Your task to perform on an android device: open sync settings in chrome Image 0: 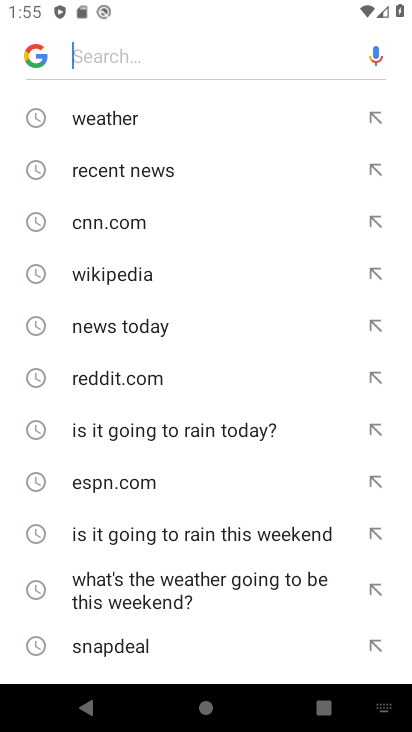
Step 0: drag from (343, 600) to (349, 245)
Your task to perform on an android device: open sync settings in chrome Image 1: 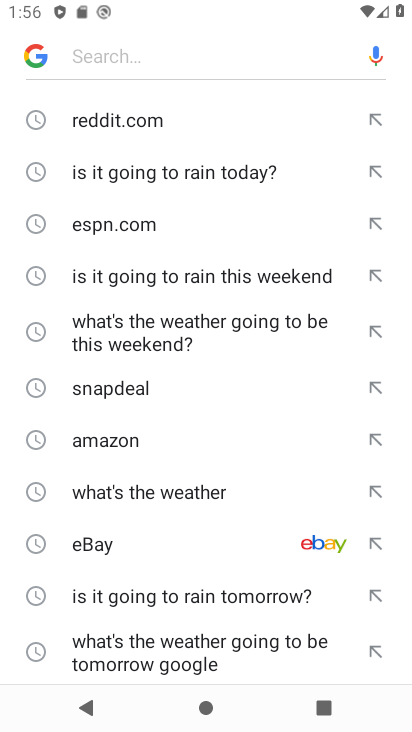
Step 1: drag from (291, 355) to (343, 13)
Your task to perform on an android device: open sync settings in chrome Image 2: 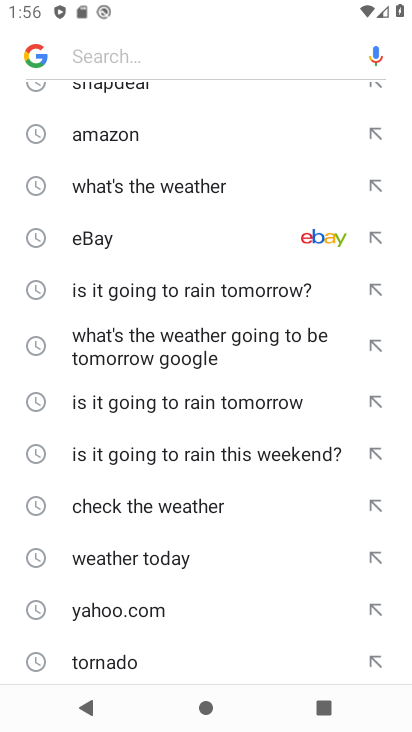
Step 2: press back button
Your task to perform on an android device: open sync settings in chrome Image 3: 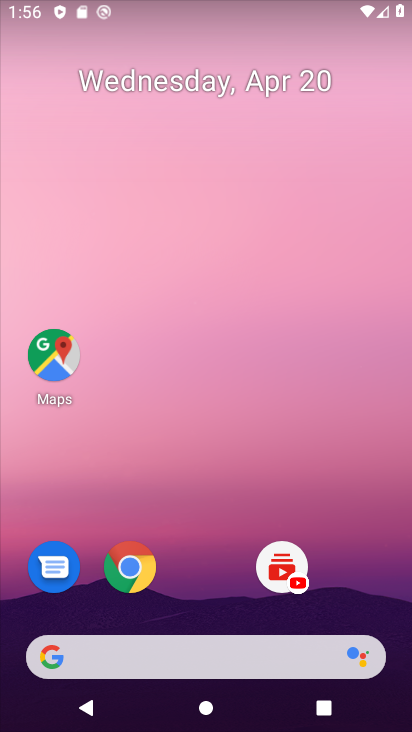
Step 3: click (145, 540)
Your task to perform on an android device: open sync settings in chrome Image 4: 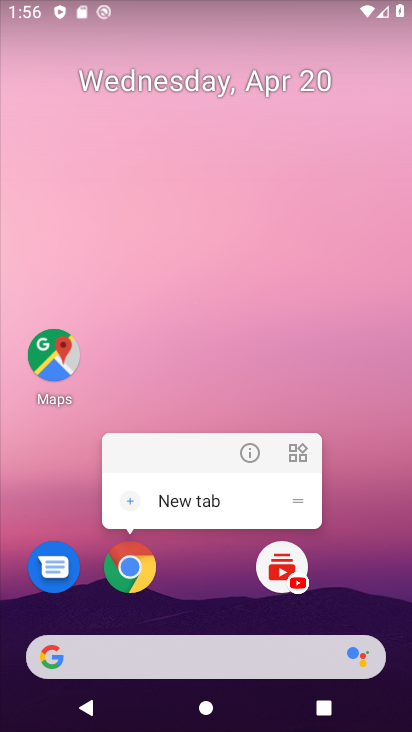
Step 4: click (272, 446)
Your task to perform on an android device: open sync settings in chrome Image 5: 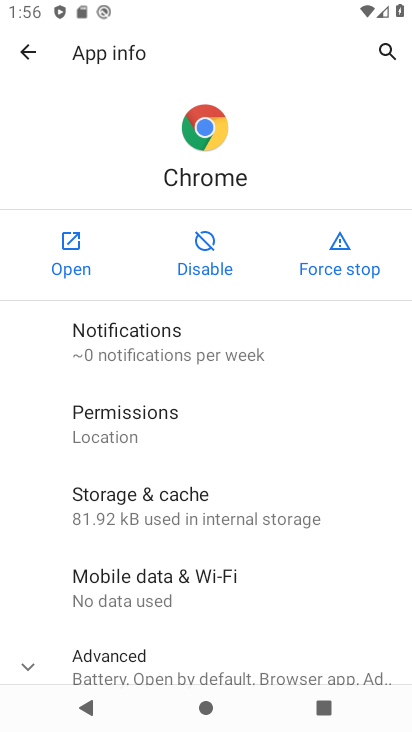
Step 5: click (77, 254)
Your task to perform on an android device: open sync settings in chrome Image 6: 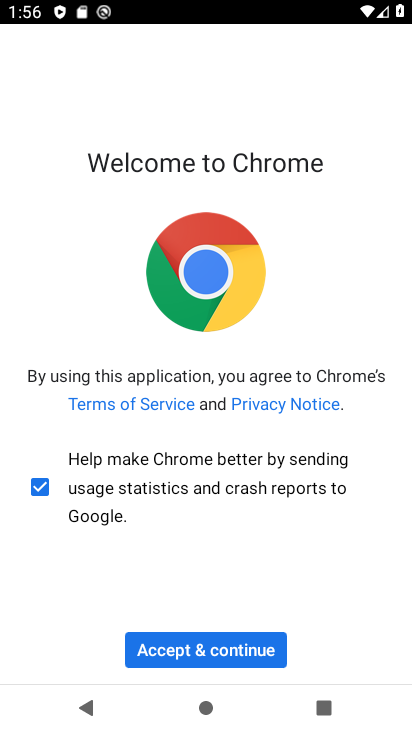
Step 6: click (184, 656)
Your task to perform on an android device: open sync settings in chrome Image 7: 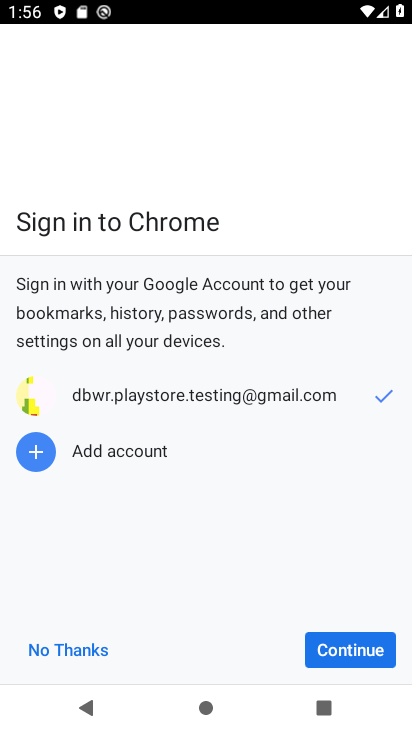
Step 7: click (83, 623)
Your task to perform on an android device: open sync settings in chrome Image 8: 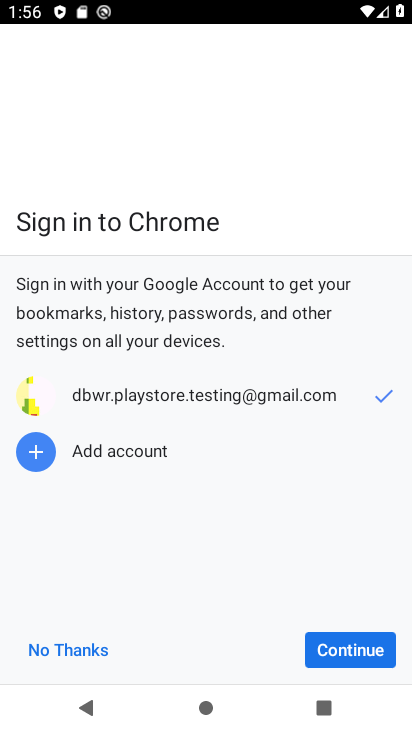
Step 8: click (42, 651)
Your task to perform on an android device: open sync settings in chrome Image 9: 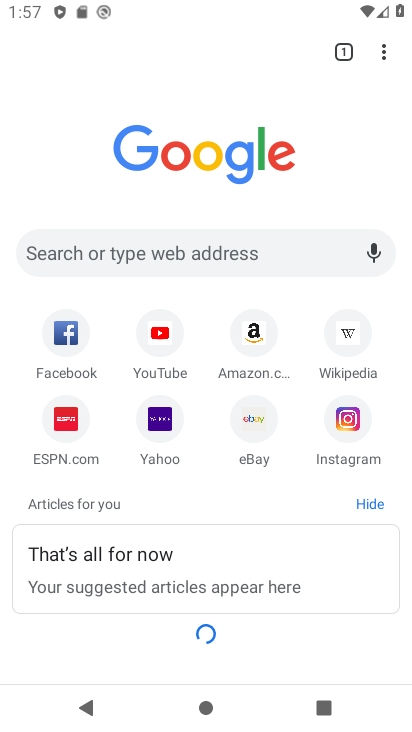
Step 9: drag from (273, 592) to (357, 300)
Your task to perform on an android device: open sync settings in chrome Image 10: 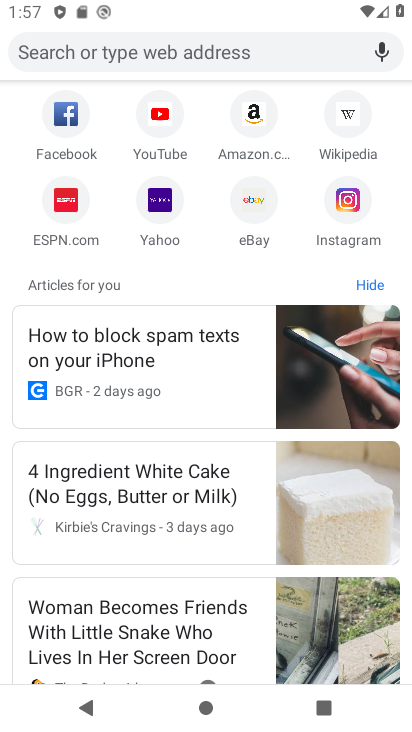
Step 10: drag from (352, 289) to (406, 713)
Your task to perform on an android device: open sync settings in chrome Image 11: 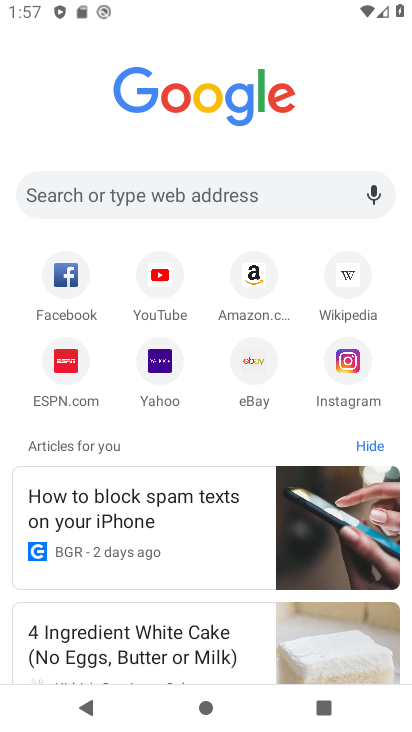
Step 11: drag from (297, 123) to (385, 574)
Your task to perform on an android device: open sync settings in chrome Image 12: 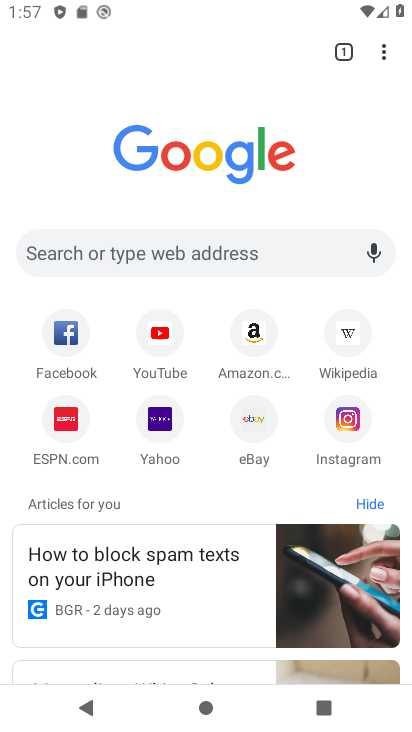
Step 12: click (389, 62)
Your task to perform on an android device: open sync settings in chrome Image 13: 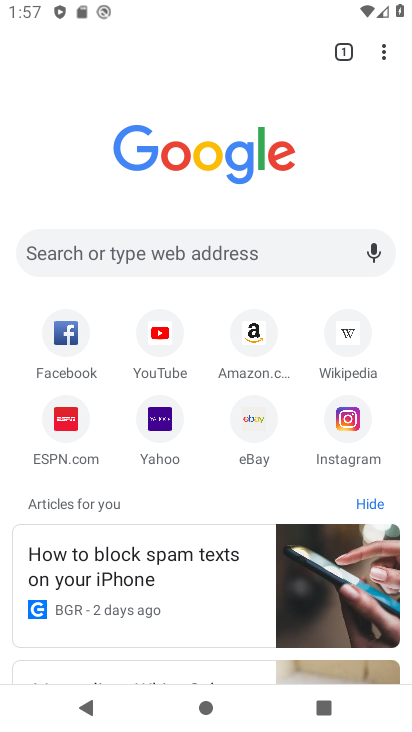
Step 13: drag from (393, 40) to (293, 421)
Your task to perform on an android device: open sync settings in chrome Image 14: 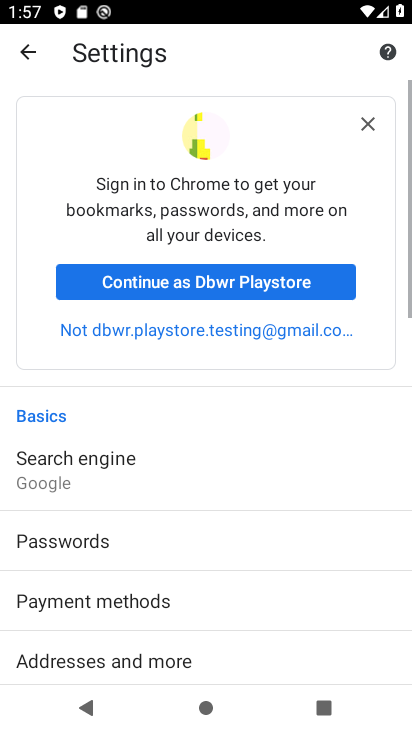
Step 14: drag from (214, 601) to (230, 124)
Your task to perform on an android device: open sync settings in chrome Image 15: 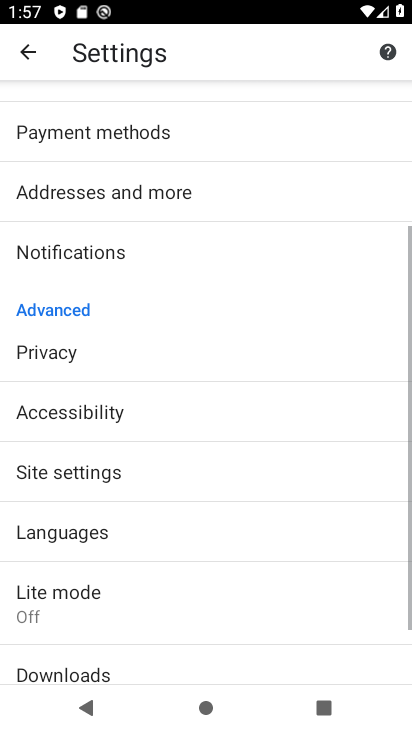
Step 15: click (180, 473)
Your task to perform on an android device: open sync settings in chrome Image 16: 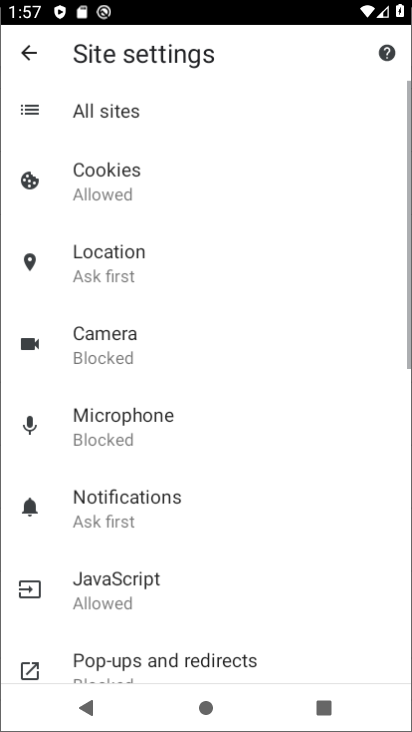
Step 16: drag from (180, 473) to (401, 50)
Your task to perform on an android device: open sync settings in chrome Image 17: 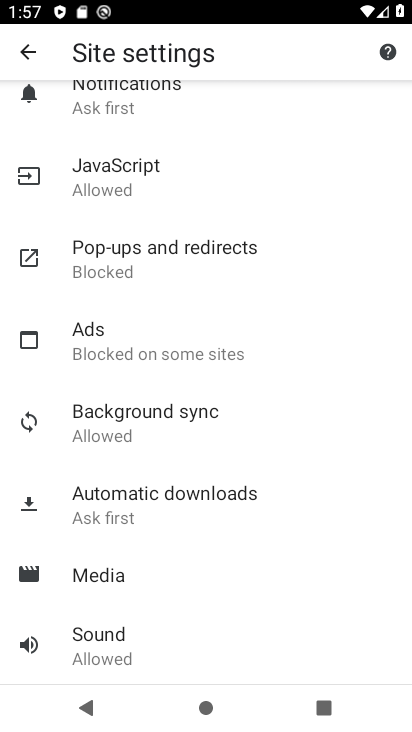
Step 17: click (214, 425)
Your task to perform on an android device: open sync settings in chrome Image 18: 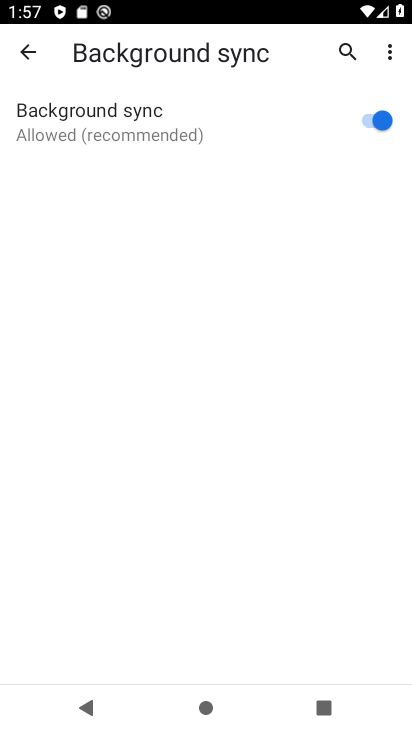
Step 18: task complete